Your task to perform on an android device: change alarm snooze length Image 0: 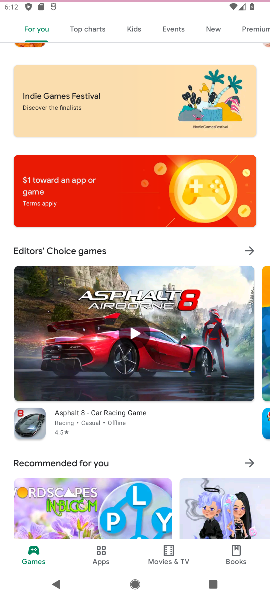
Step 0: press home button
Your task to perform on an android device: change alarm snooze length Image 1: 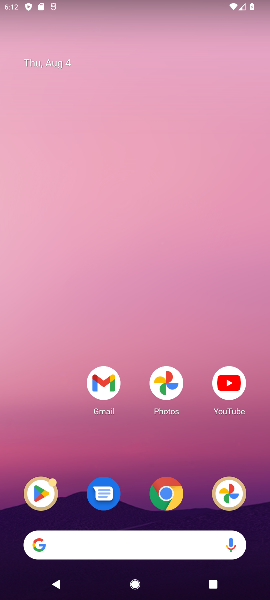
Step 1: drag from (132, 465) to (181, 66)
Your task to perform on an android device: change alarm snooze length Image 2: 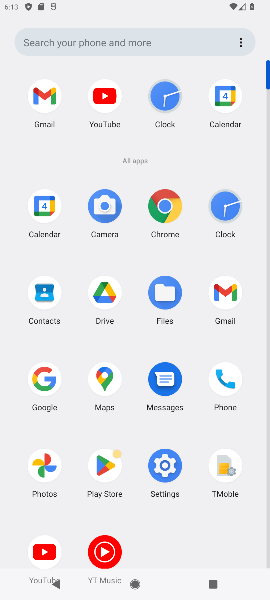
Step 2: click (226, 205)
Your task to perform on an android device: change alarm snooze length Image 3: 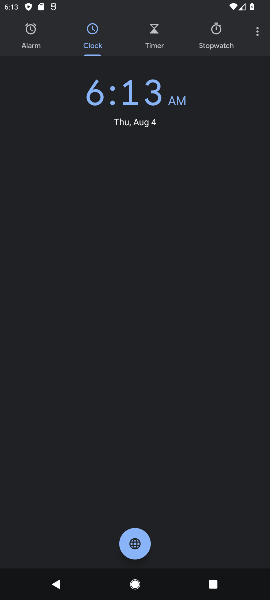
Step 3: click (258, 32)
Your task to perform on an android device: change alarm snooze length Image 4: 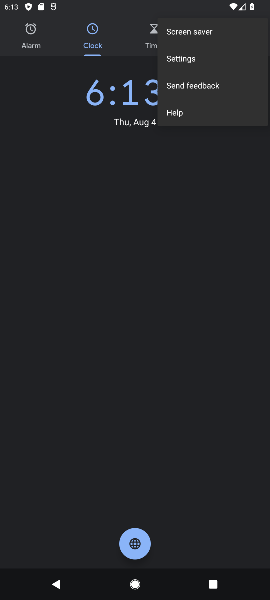
Step 4: click (196, 58)
Your task to perform on an android device: change alarm snooze length Image 5: 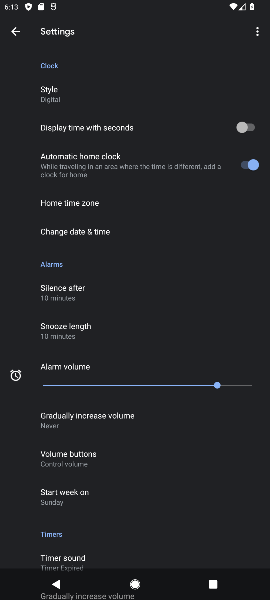
Step 5: click (92, 329)
Your task to perform on an android device: change alarm snooze length Image 6: 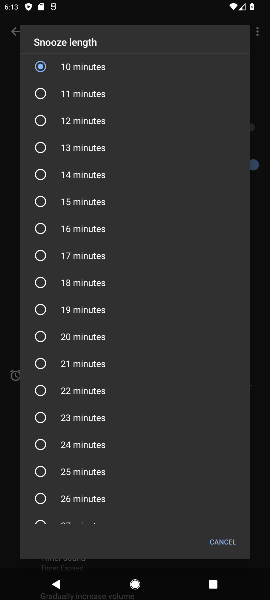
Step 6: drag from (66, 99) to (40, 482)
Your task to perform on an android device: change alarm snooze length Image 7: 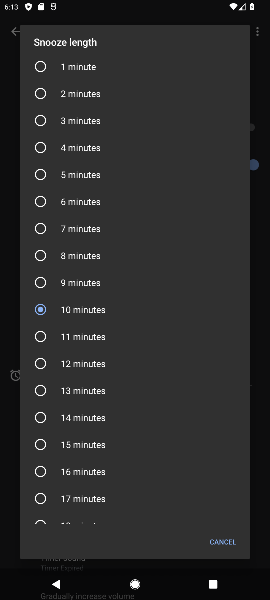
Step 7: click (41, 119)
Your task to perform on an android device: change alarm snooze length Image 8: 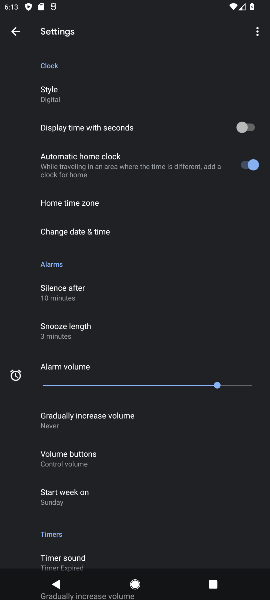
Step 8: task complete